Your task to perform on an android device: toggle show notifications on the lock screen Image 0: 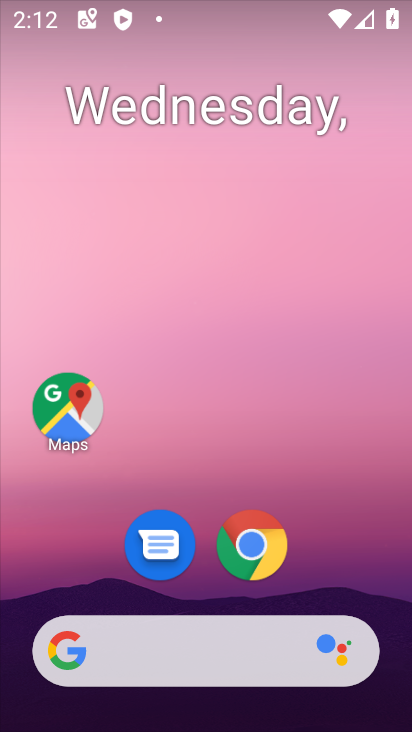
Step 0: drag from (341, 526) to (302, 151)
Your task to perform on an android device: toggle show notifications on the lock screen Image 1: 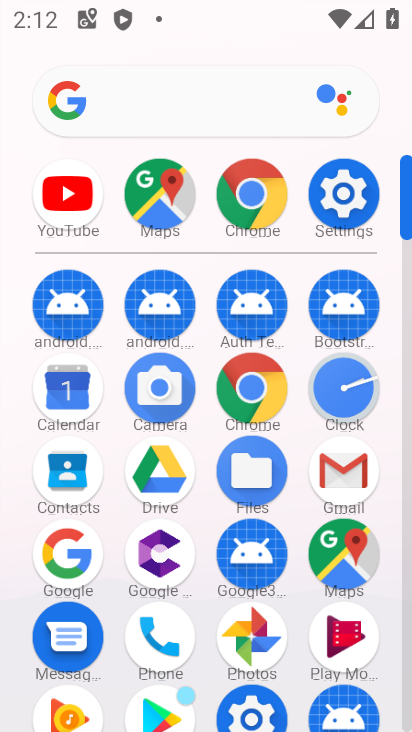
Step 1: click (336, 189)
Your task to perform on an android device: toggle show notifications on the lock screen Image 2: 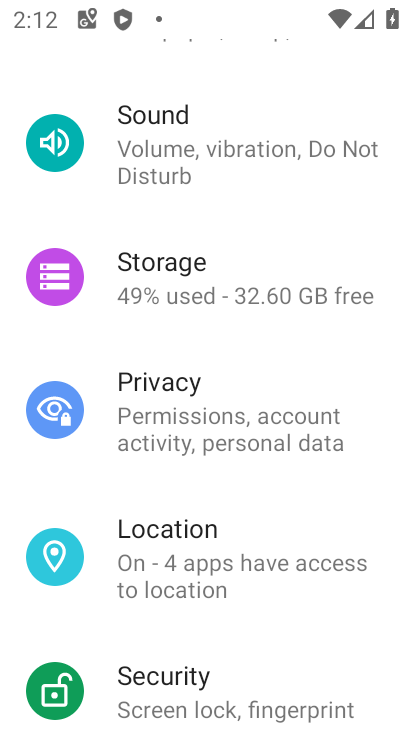
Step 2: drag from (214, 179) to (237, 558)
Your task to perform on an android device: toggle show notifications on the lock screen Image 3: 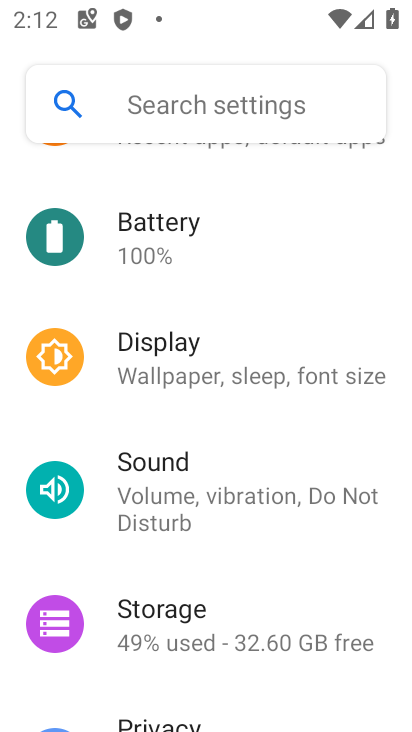
Step 3: drag from (242, 264) to (231, 513)
Your task to perform on an android device: toggle show notifications on the lock screen Image 4: 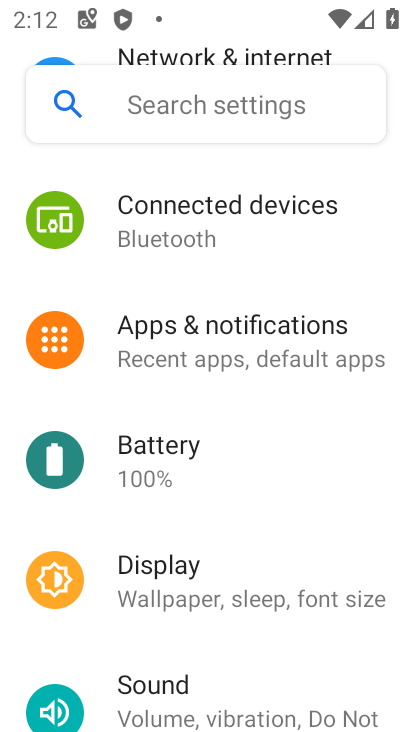
Step 4: click (211, 351)
Your task to perform on an android device: toggle show notifications on the lock screen Image 5: 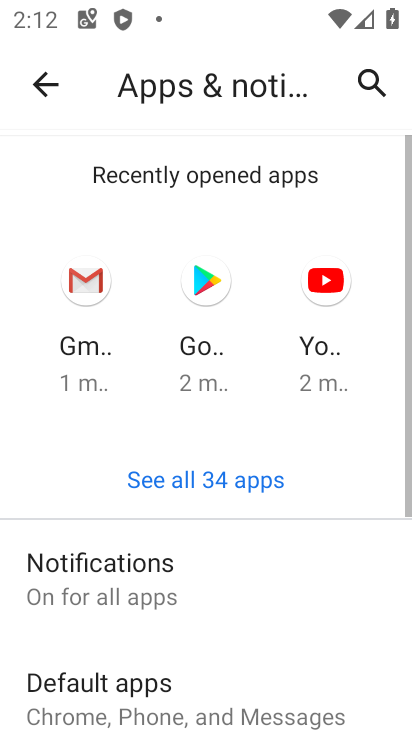
Step 5: click (143, 570)
Your task to perform on an android device: toggle show notifications on the lock screen Image 6: 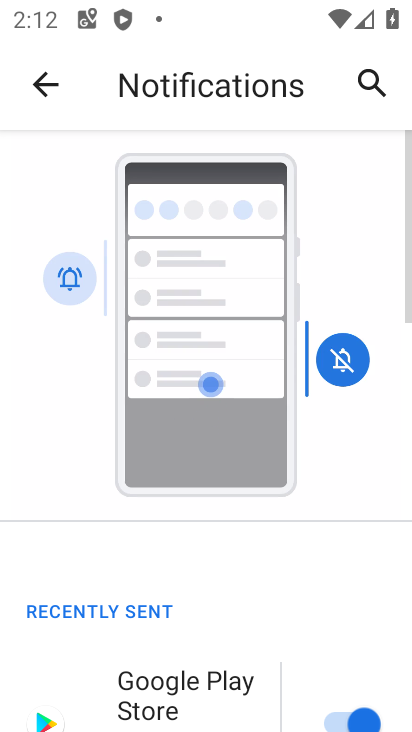
Step 6: drag from (246, 623) to (246, 88)
Your task to perform on an android device: toggle show notifications on the lock screen Image 7: 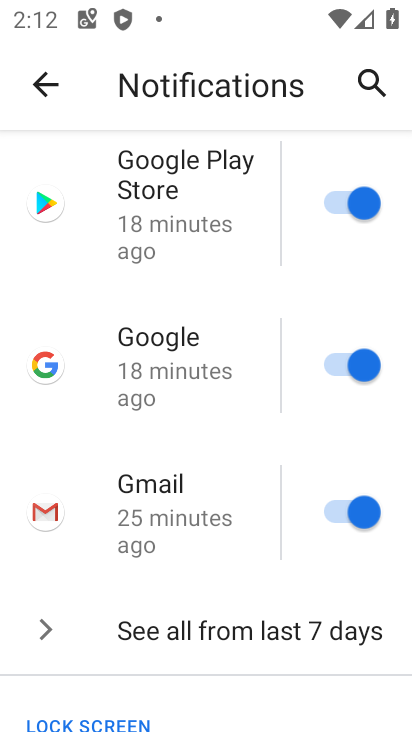
Step 7: drag from (210, 690) to (173, 243)
Your task to perform on an android device: toggle show notifications on the lock screen Image 8: 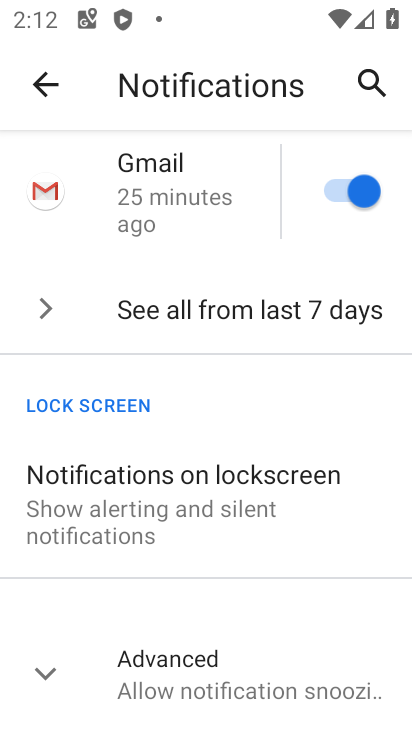
Step 8: click (142, 510)
Your task to perform on an android device: toggle show notifications on the lock screen Image 9: 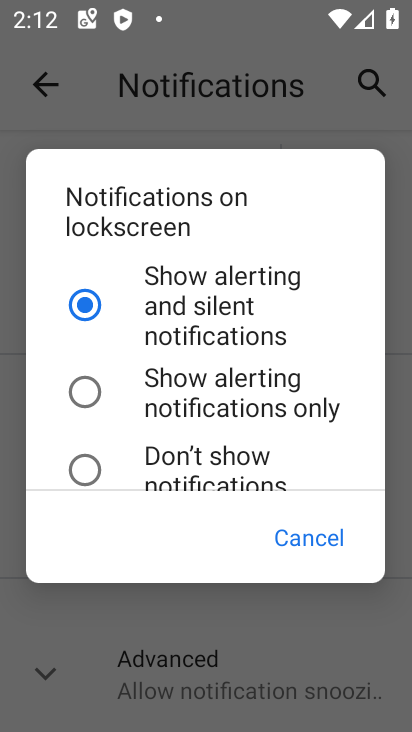
Step 9: click (194, 379)
Your task to perform on an android device: toggle show notifications on the lock screen Image 10: 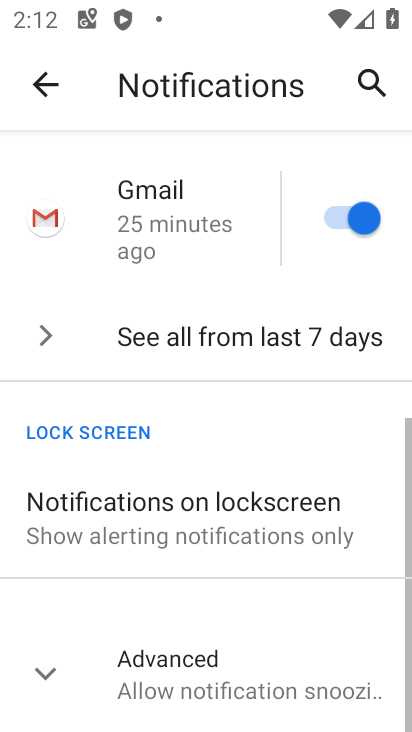
Step 10: task complete